Your task to perform on an android device: Open Chrome and go to settings Image 0: 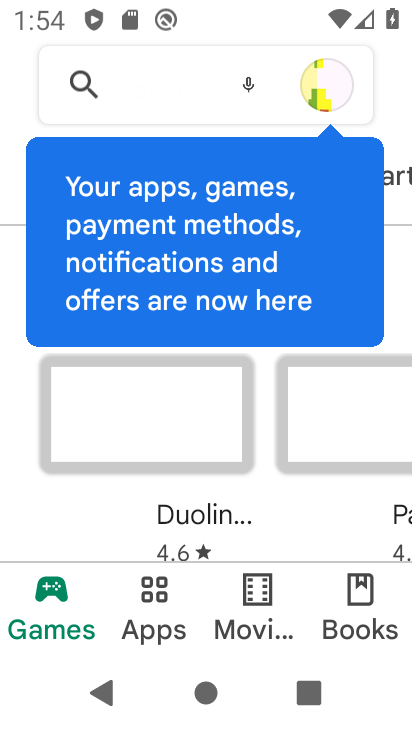
Step 0: press home button
Your task to perform on an android device: Open Chrome and go to settings Image 1: 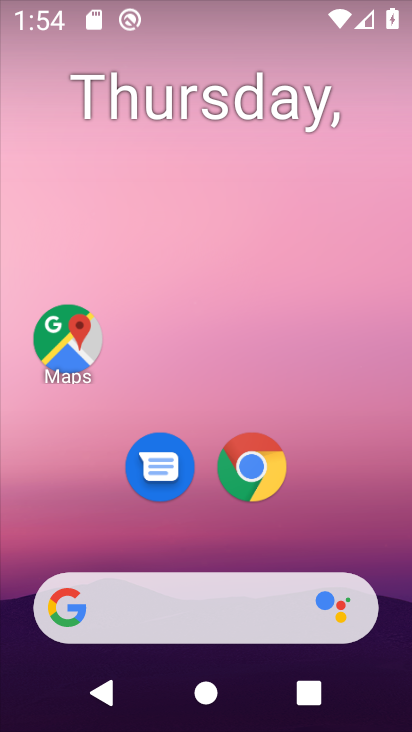
Step 1: click (267, 461)
Your task to perform on an android device: Open Chrome and go to settings Image 2: 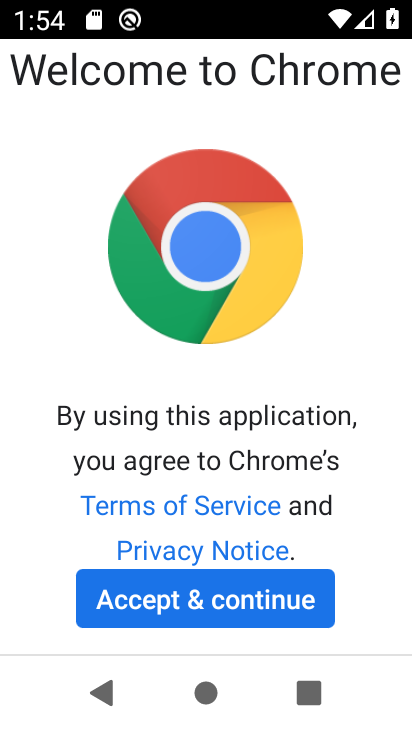
Step 2: click (292, 619)
Your task to perform on an android device: Open Chrome and go to settings Image 3: 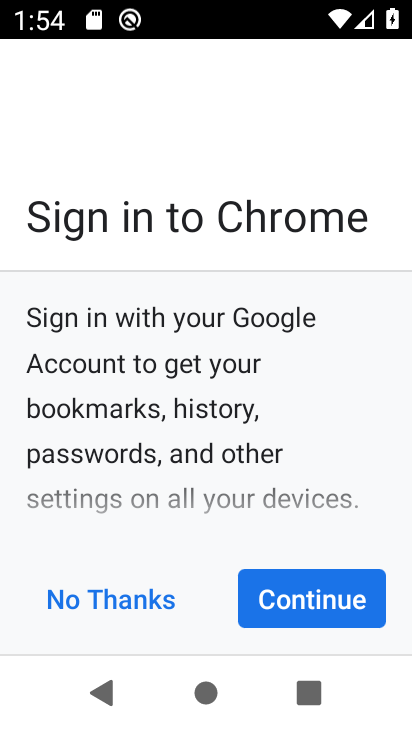
Step 3: click (308, 599)
Your task to perform on an android device: Open Chrome and go to settings Image 4: 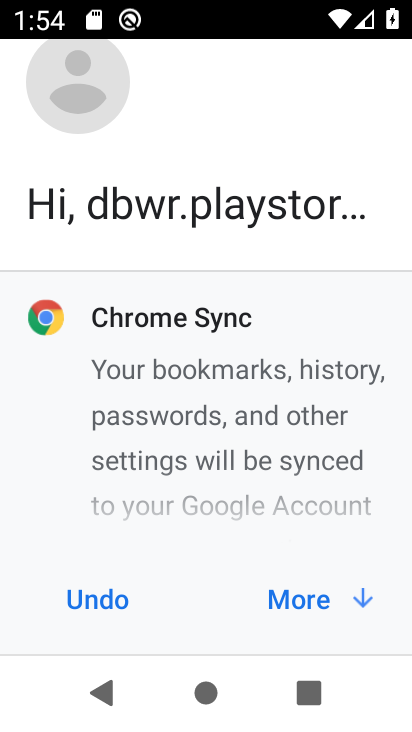
Step 4: click (308, 599)
Your task to perform on an android device: Open Chrome and go to settings Image 5: 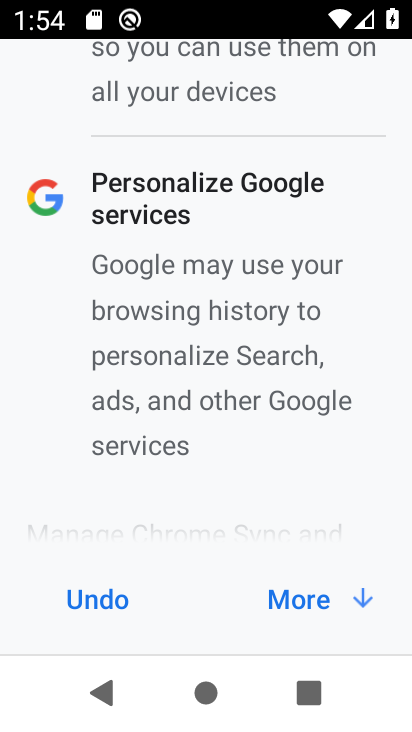
Step 5: click (313, 589)
Your task to perform on an android device: Open Chrome and go to settings Image 6: 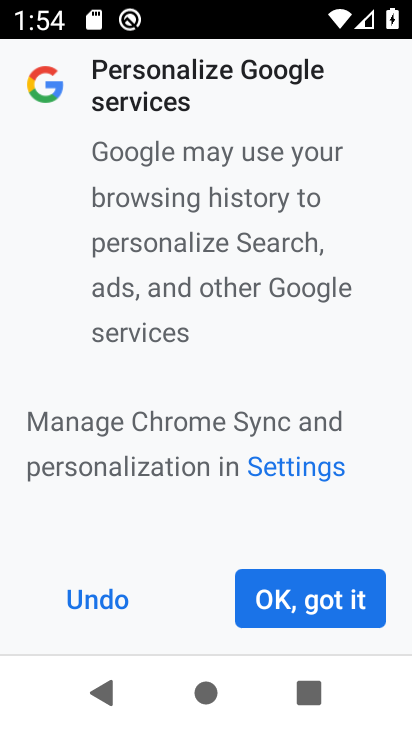
Step 6: click (333, 603)
Your task to perform on an android device: Open Chrome and go to settings Image 7: 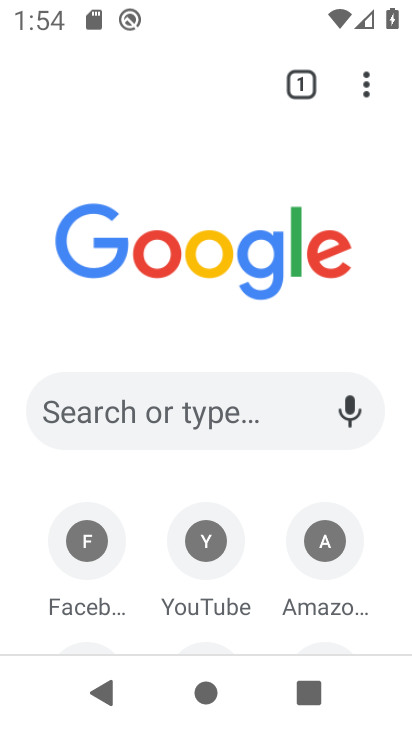
Step 7: click (360, 105)
Your task to perform on an android device: Open Chrome and go to settings Image 8: 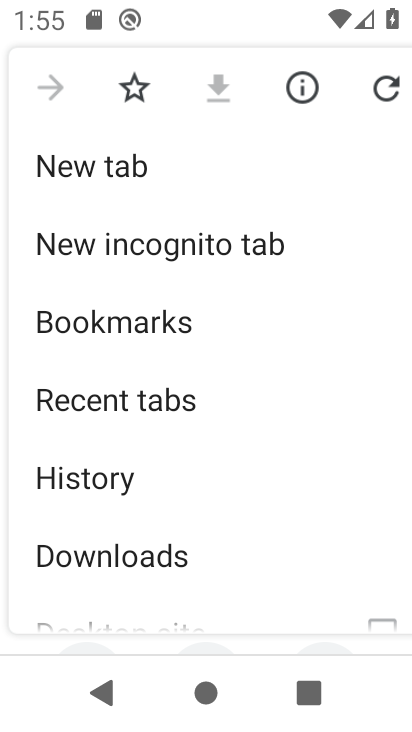
Step 8: drag from (230, 487) to (223, 200)
Your task to perform on an android device: Open Chrome and go to settings Image 9: 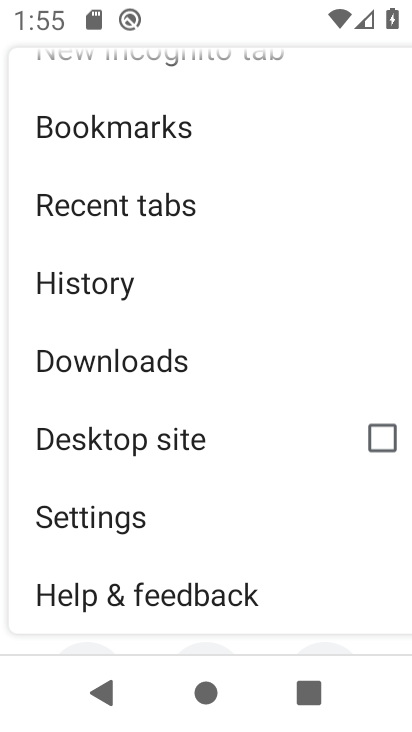
Step 9: click (107, 534)
Your task to perform on an android device: Open Chrome and go to settings Image 10: 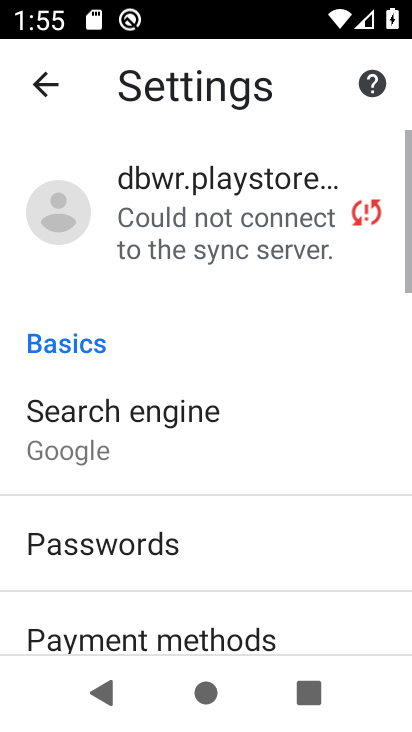
Step 10: task complete